Your task to perform on an android device: Go to Maps Image 0: 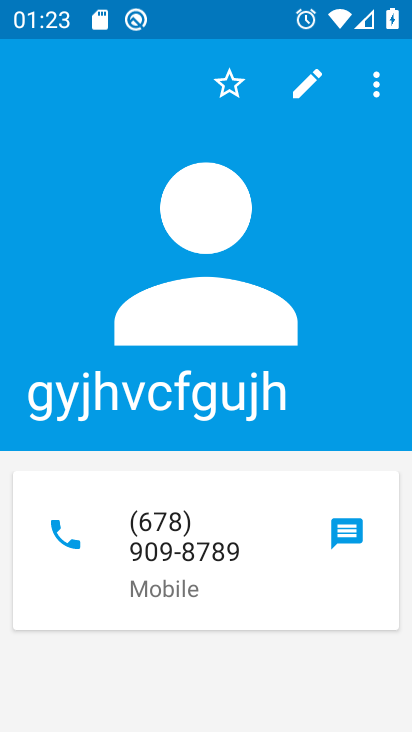
Step 0: press home button
Your task to perform on an android device: Go to Maps Image 1: 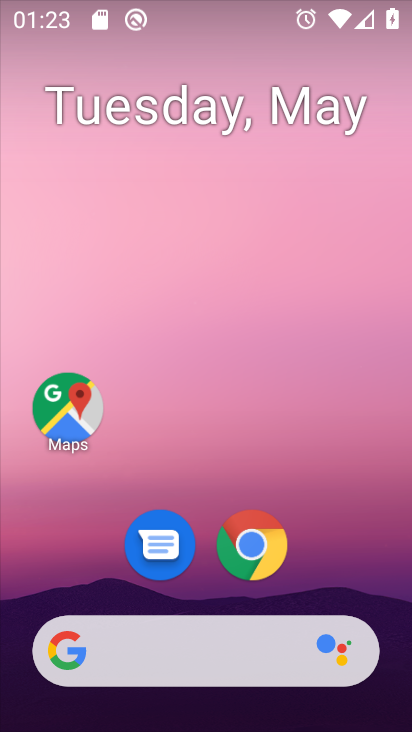
Step 1: click (361, 2)
Your task to perform on an android device: Go to Maps Image 2: 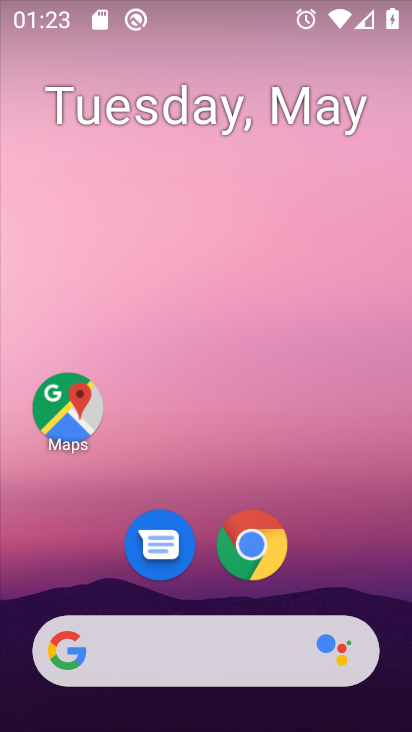
Step 2: drag from (398, 550) to (405, 2)
Your task to perform on an android device: Go to Maps Image 3: 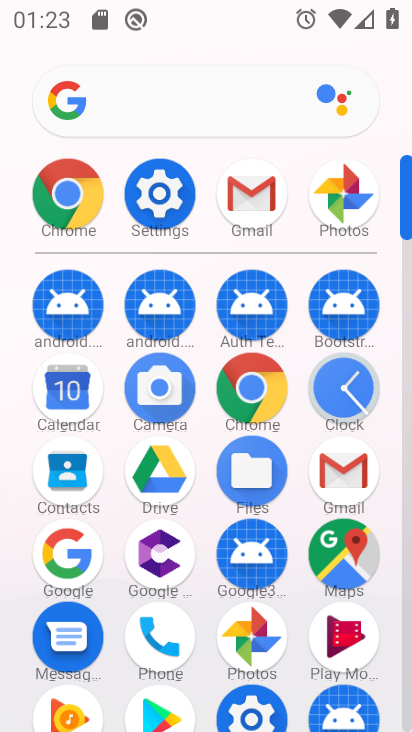
Step 3: click (337, 544)
Your task to perform on an android device: Go to Maps Image 4: 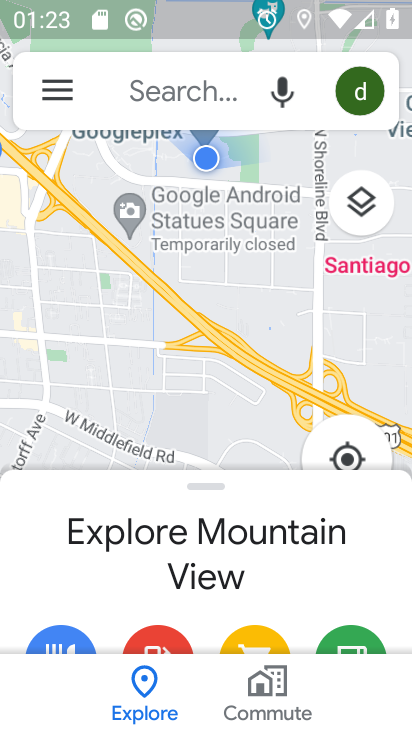
Step 4: task complete